Your task to perform on an android device: see creations saved in the google photos Image 0: 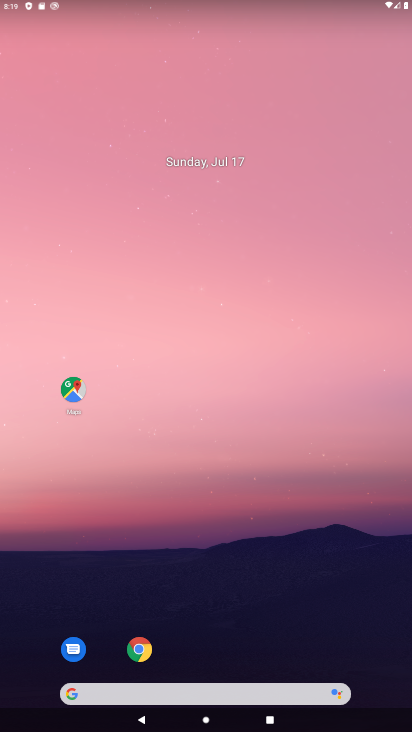
Step 0: drag from (211, 659) to (236, 202)
Your task to perform on an android device: see creations saved in the google photos Image 1: 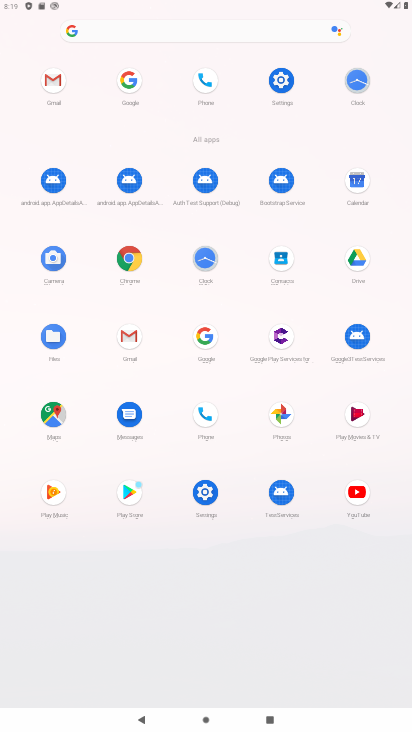
Step 1: click (281, 413)
Your task to perform on an android device: see creations saved in the google photos Image 2: 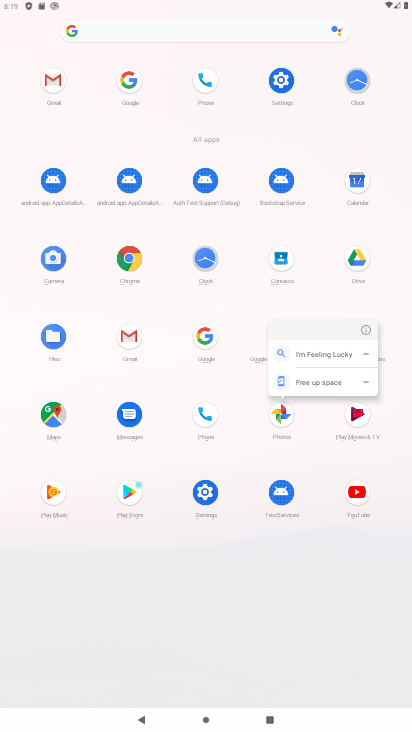
Step 2: click (281, 412)
Your task to perform on an android device: see creations saved in the google photos Image 3: 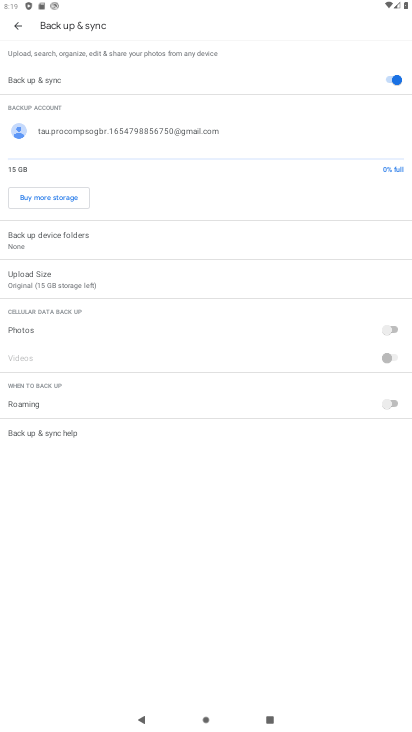
Step 3: press back button
Your task to perform on an android device: see creations saved in the google photos Image 4: 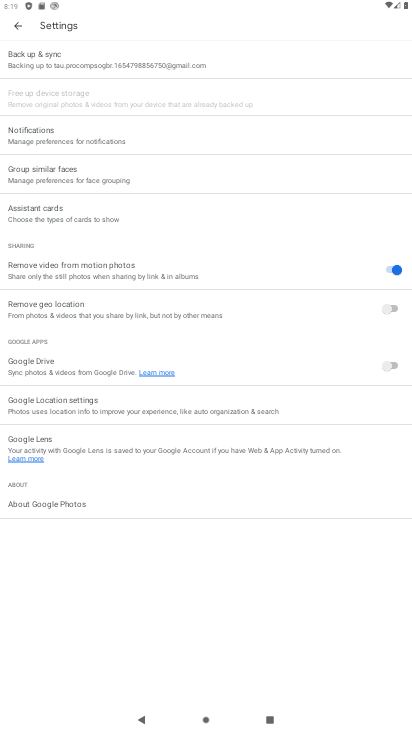
Step 4: press back button
Your task to perform on an android device: see creations saved in the google photos Image 5: 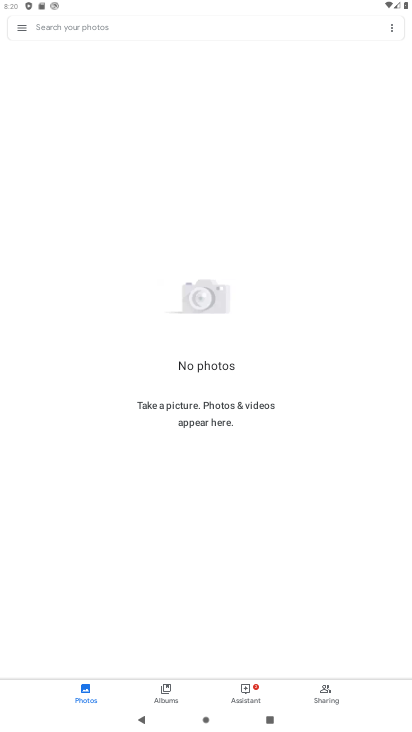
Step 5: click (134, 29)
Your task to perform on an android device: see creations saved in the google photos Image 6: 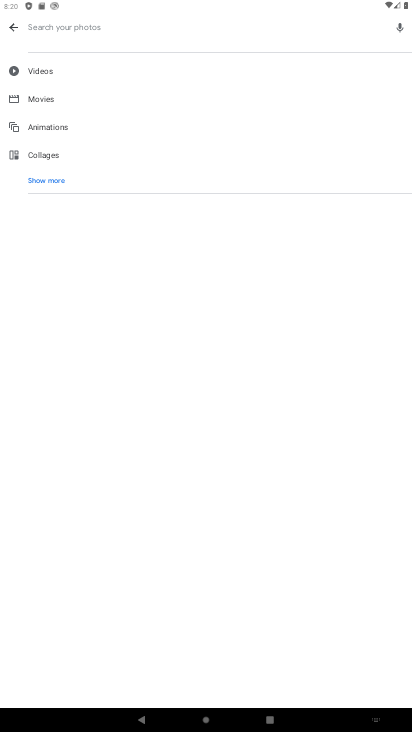
Step 6: click (54, 176)
Your task to perform on an android device: see creations saved in the google photos Image 7: 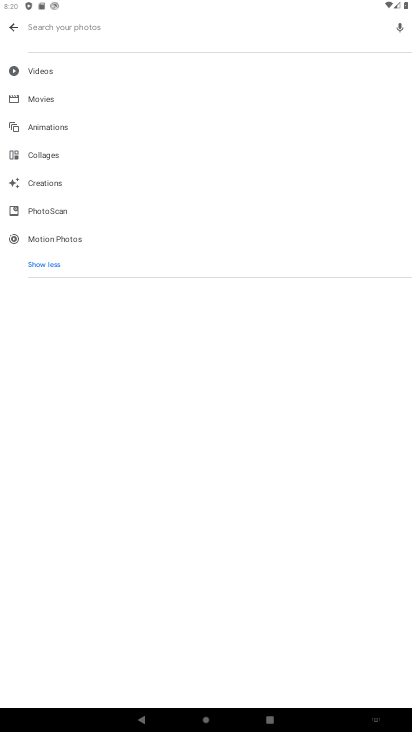
Step 7: click (49, 179)
Your task to perform on an android device: see creations saved in the google photos Image 8: 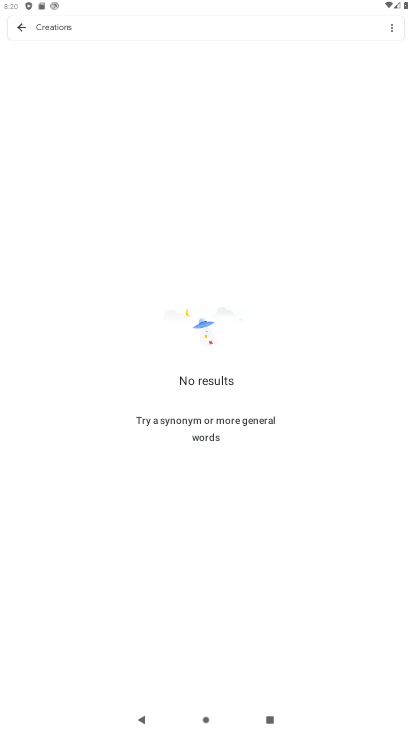
Step 8: task complete